Your task to perform on an android device: Open settings on Google Maps Image 0: 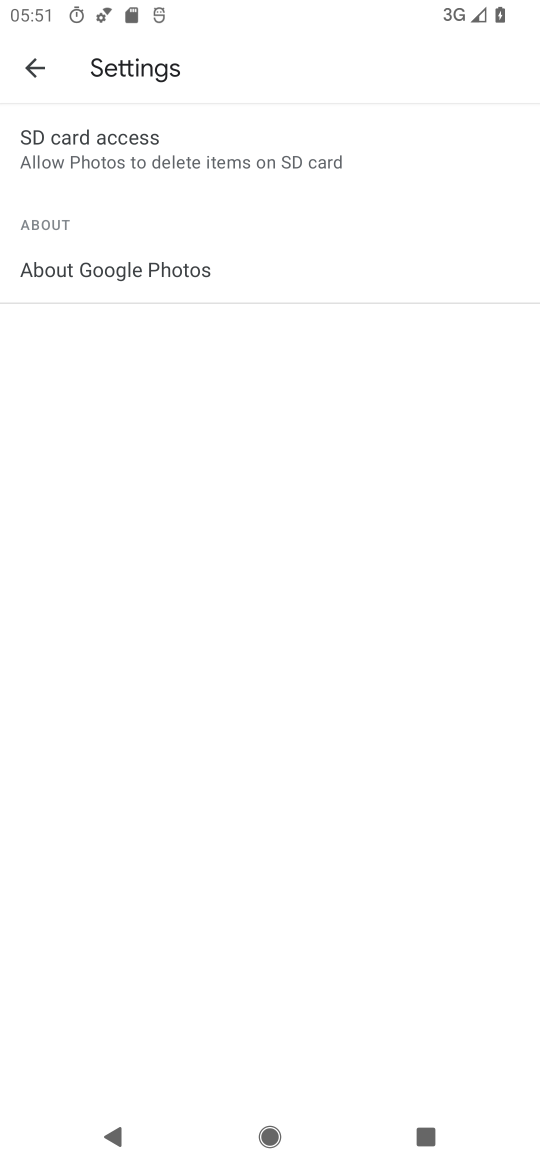
Step 0: press home button
Your task to perform on an android device: Open settings on Google Maps Image 1: 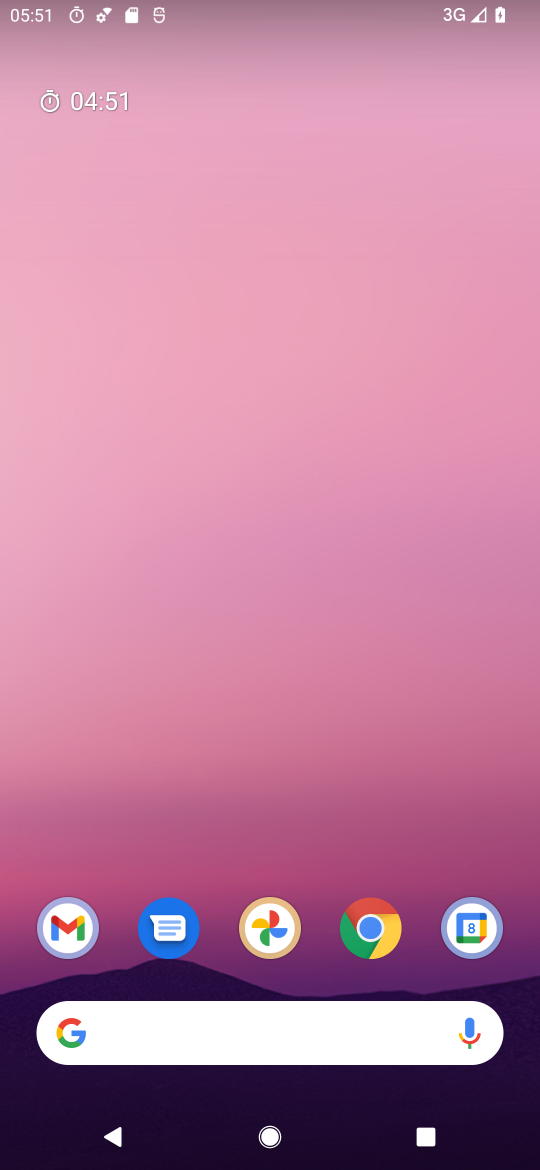
Step 1: drag from (220, 991) to (228, 2)
Your task to perform on an android device: Open settings on Google Maps Image 2: 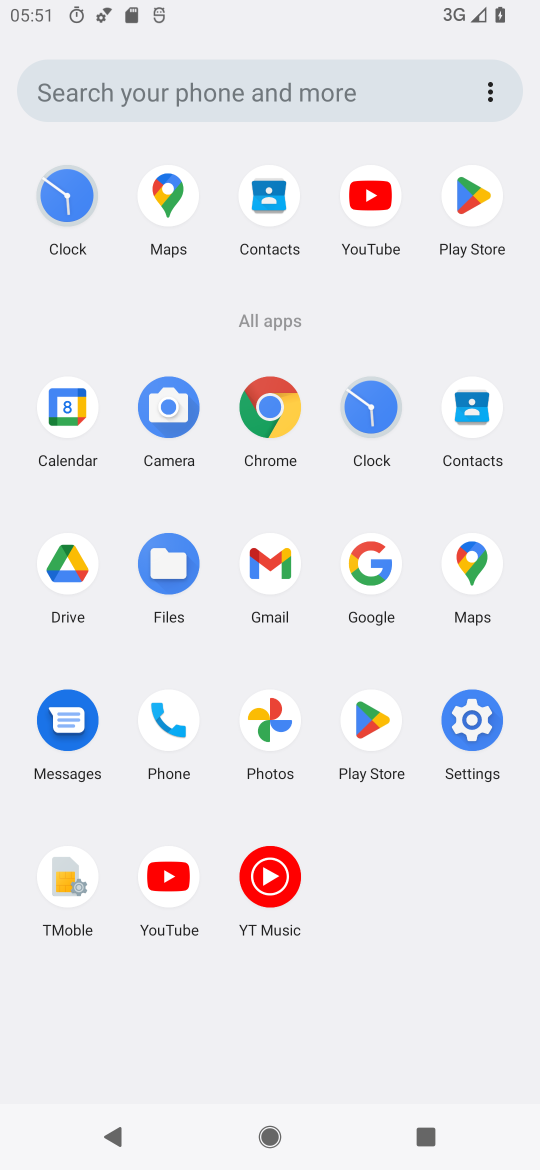
Step 2: click (480, 591)
Your task to perform on an android device: Open settings on Google Maps Image 3: 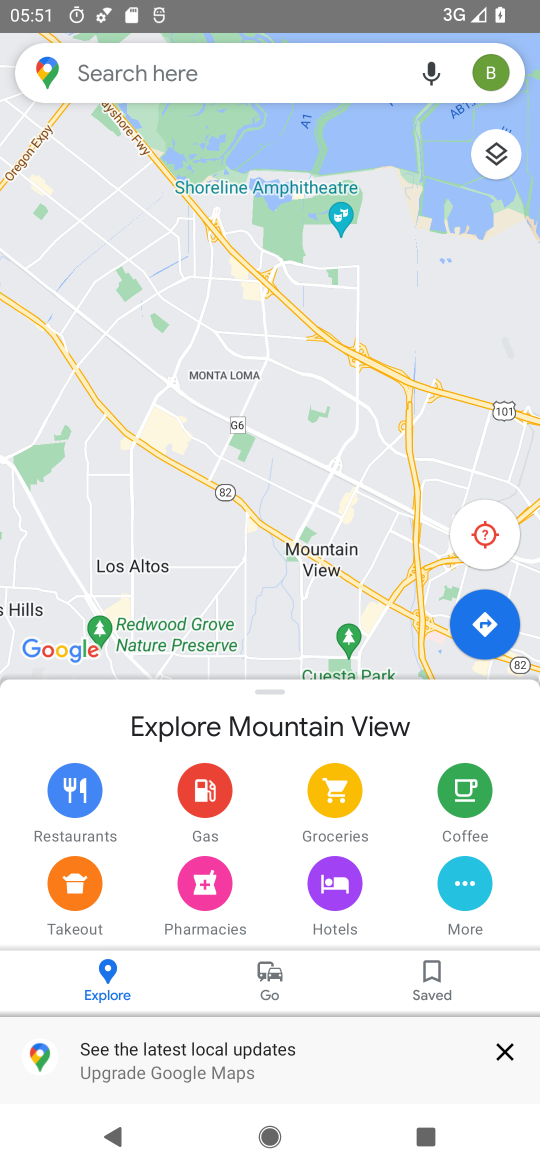
Step 3: click (503, 74)
Your task to perform on an android device: Open settings on Google Maps Image 4: 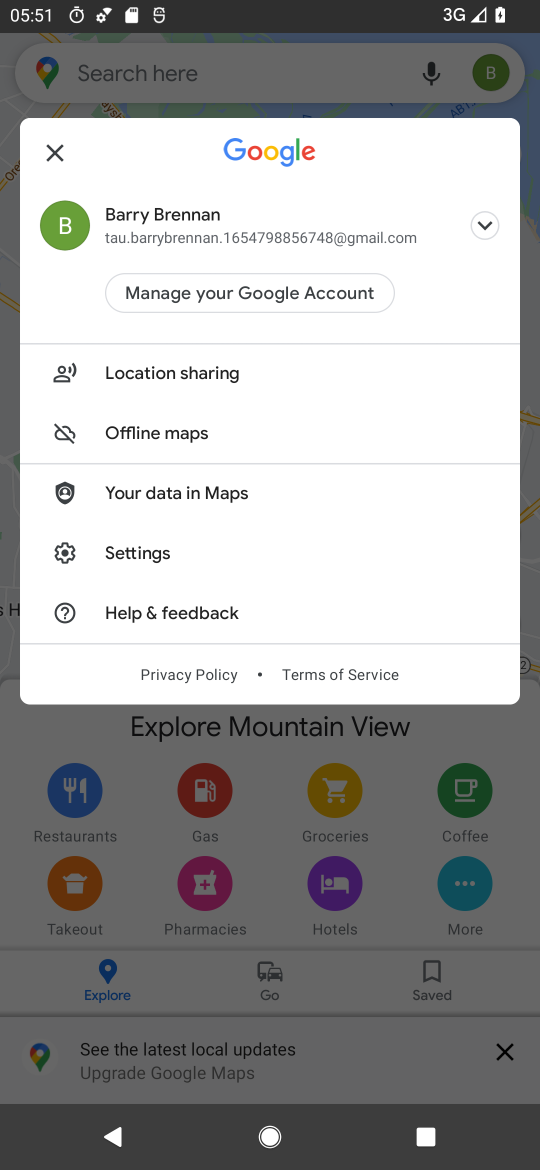
Step 4: click (156, 552)
Your task to perform on an android device: Open settings on Google Maps Image 5: 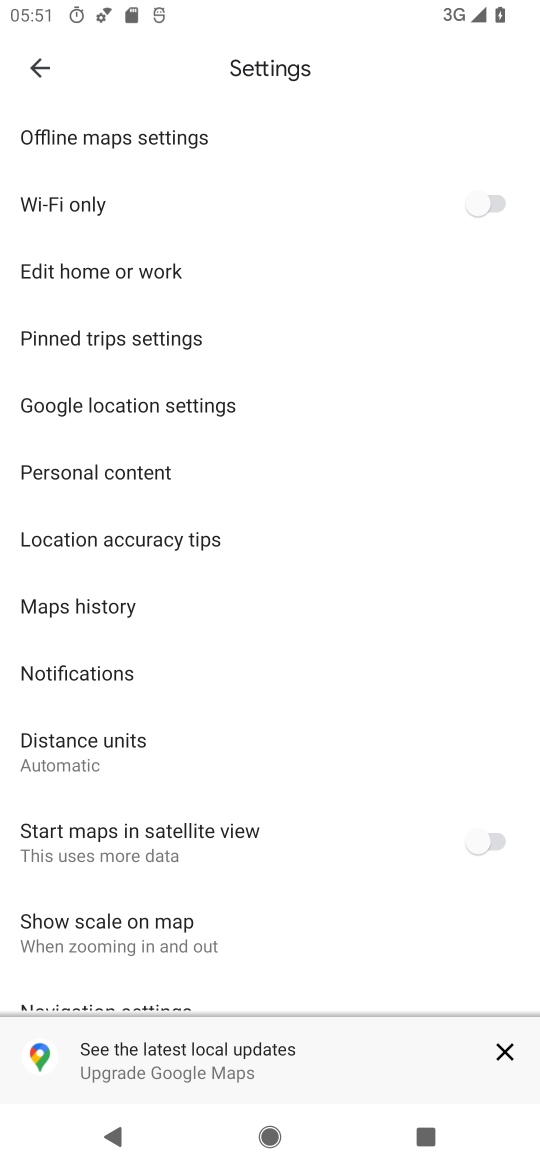
Step 5: task complete